Your task to perform on an android device: Go to CNN.com Image 0: 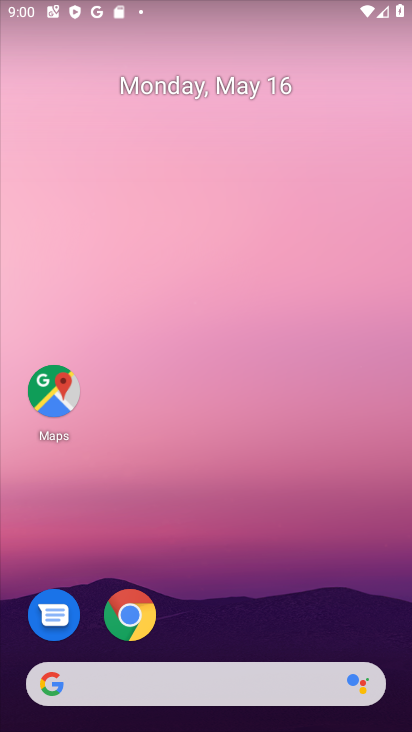
Step 0: click (123, 614)
Your task to perform on an android device: Go to CNN.com Image 1: 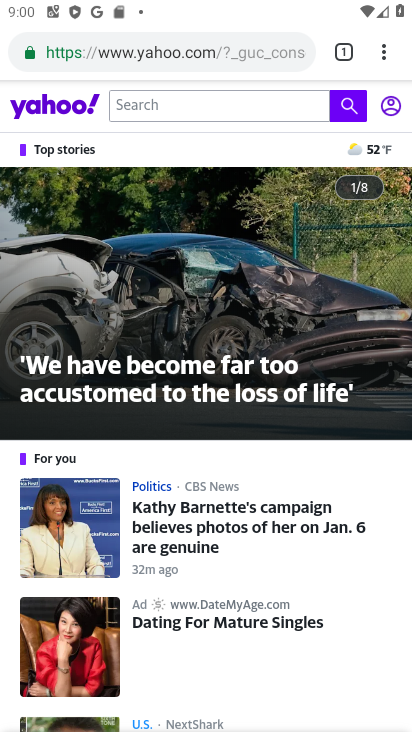
Step 1: click (191, 45)
Your task to perform on an android device: Go to CNN.com Image 2: 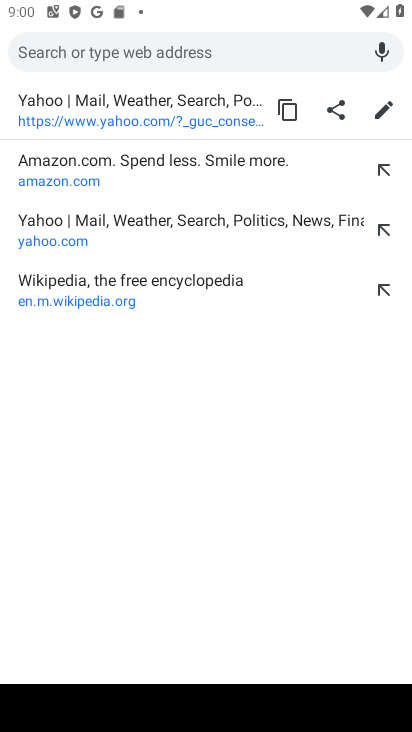
Step 2: type "CNN.com"
Your task to perform on an android device: Go to CNN.com Image 3: 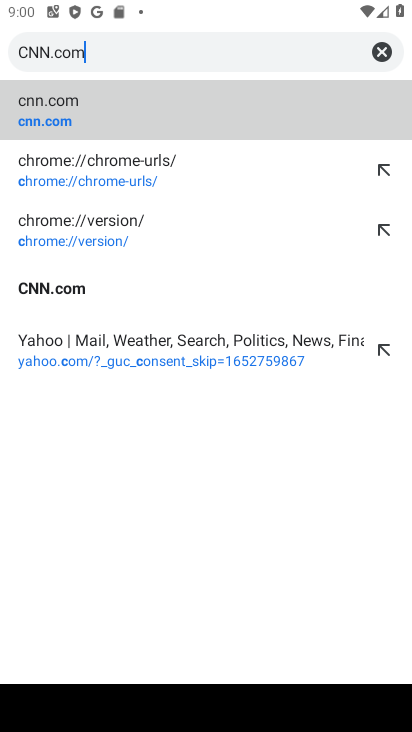
Step 3: type ""
Your task to perform on an android device: Go to CNN.com Image 4: 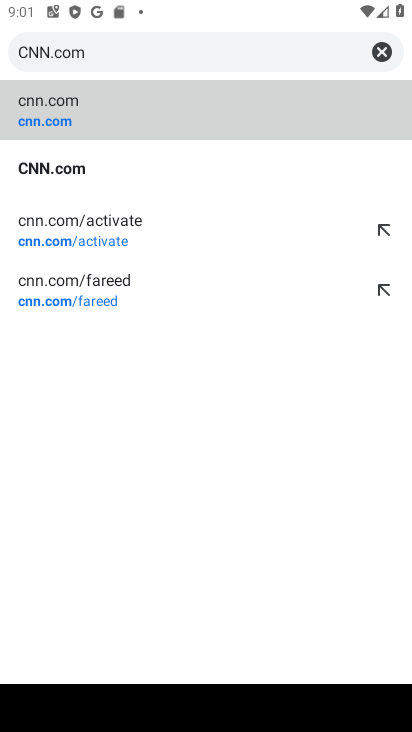
Step 4: click (84, 165)
Your task to perform on an android device: Go to CNN.com Image 5: 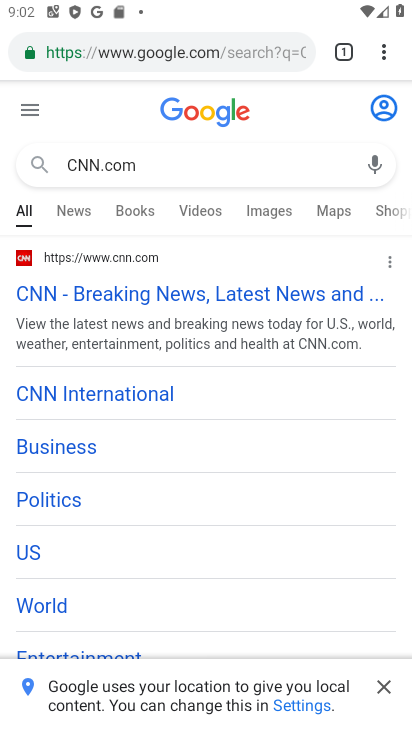
Step 5: click (137, 290)
Your task to perform on an android device: Go to CNN.com Image 6: 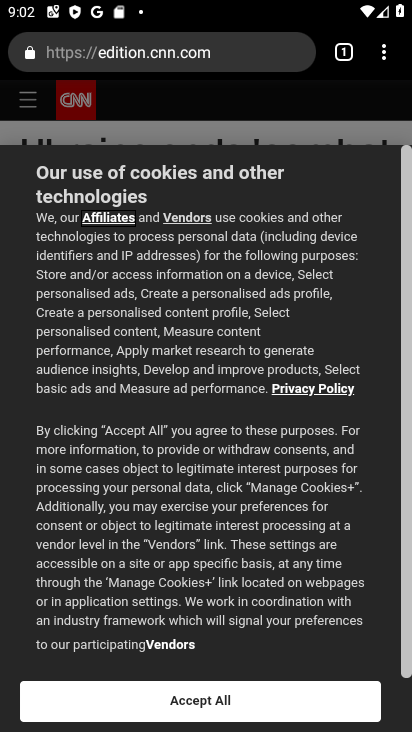
Step 6: task complete